Your task to perform on an android device: Go to display settings Image 0: 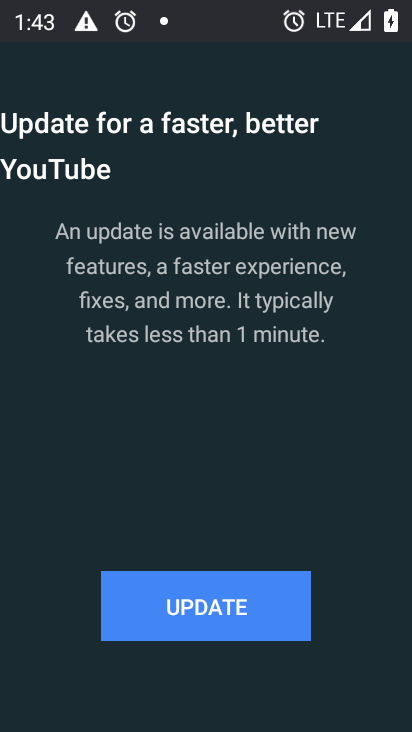
Step 0: press home button
Your task to perform on an android device: Go to display settings Image 1: 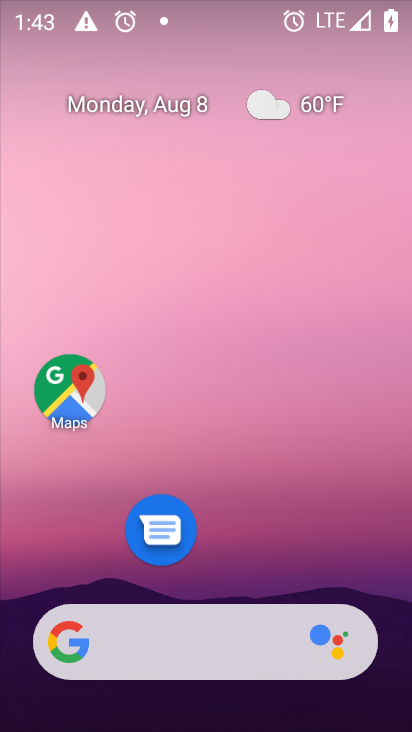
Step 1: drag from (226, 596) to (232, 211)
Your task to perform on an android device: Go to display settings Image 2: 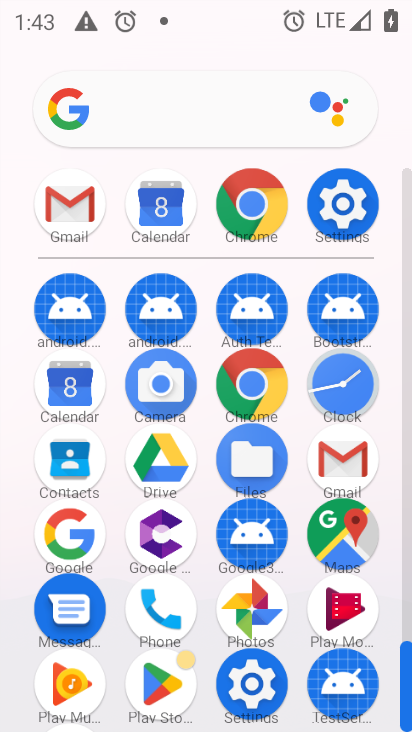
Step 2: click (353, 217)
Your task to perform on an android device: Go to display settings Image 3: 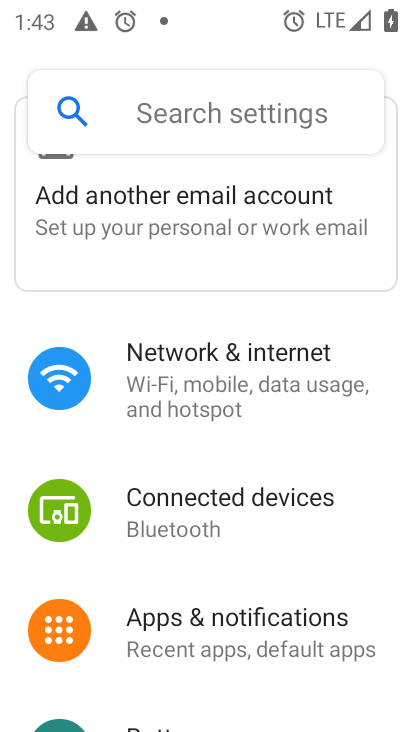
Step 3: drag from (181, 689) to (177, 344)
Your task to perform on an android device: Go to display settings Image 4: 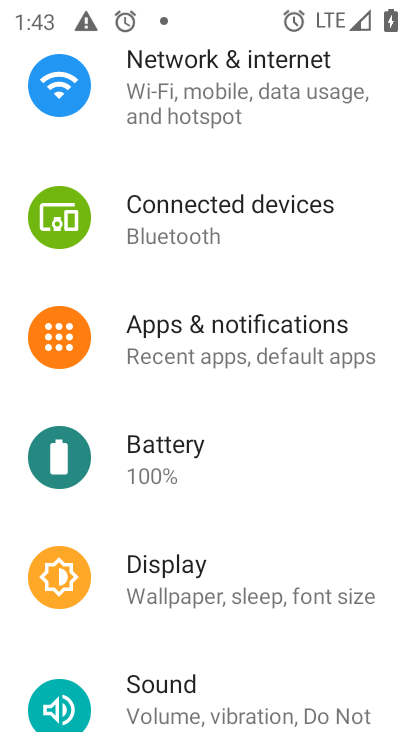
Step 4: click (172, 580)
Your task to perform on an android device: Go to display settings Image 5: 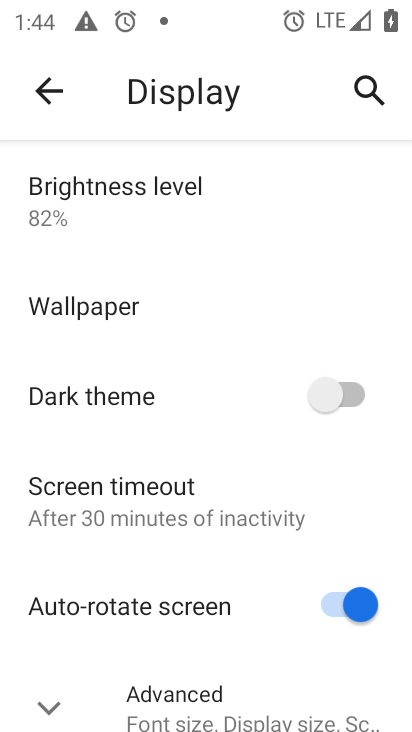
Step 5: task complete